Your task to perform on an android device: turn notification dots off Image 0: 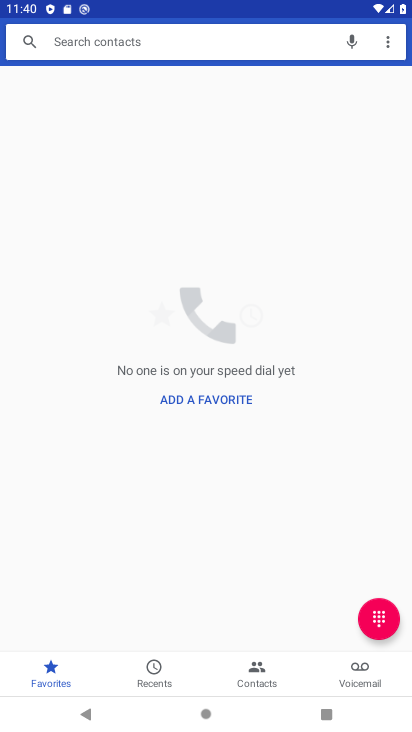
Step 0: press home button
Your task to perform on an android device: turn notification dots off Image 1: 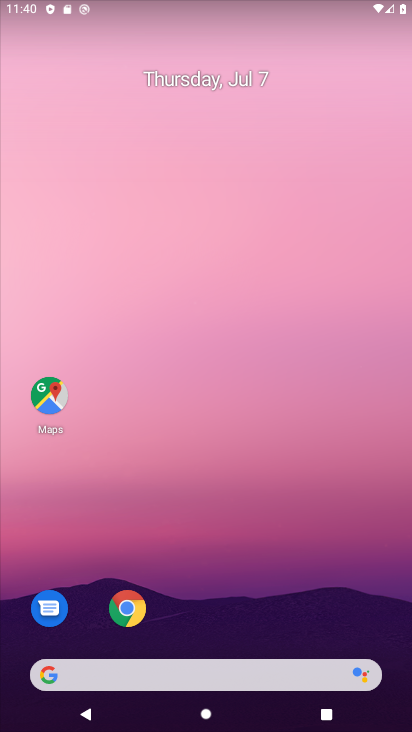
Step 1: drag from (261, 622) to (263, 216)
Your task to perform on an android device: turn notification dots off Image 2: 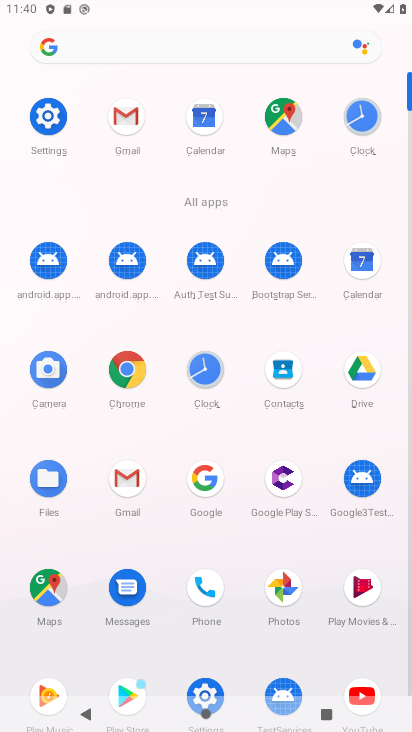
Step 2: click (60, 131)
Your task to perform on an android device: turn notification dots off Image 3: 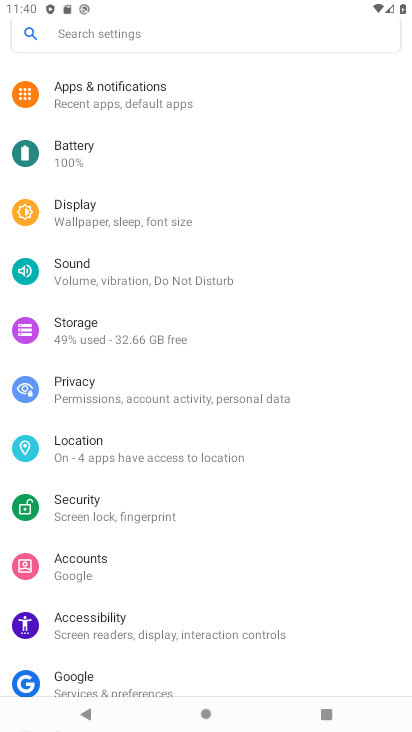
Step 3: task complete